Your task to perform on an android device: empty trash in google photos Image 0: 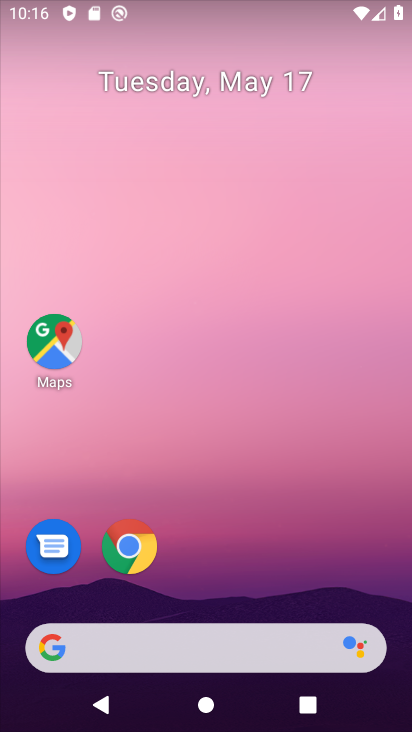
Step 0: drag from (315, 616) to (412, 531)
Your task to perform on an android device: empty trash in google photos Image 1: 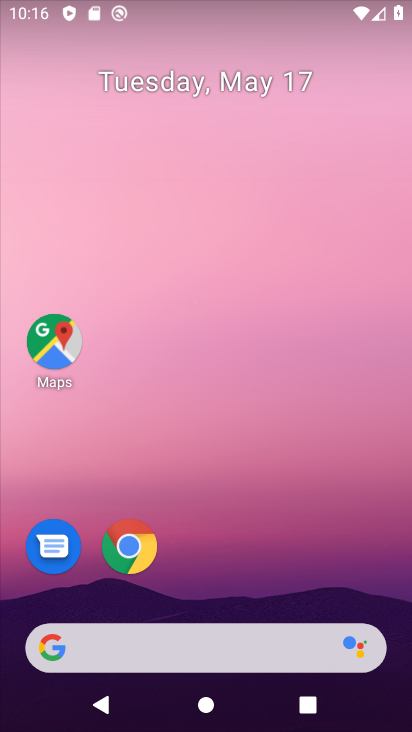
Step 1: drag from (276, 602) to (382, 18)
Your task to perform on an android device: empty trash in google photos Image 2: 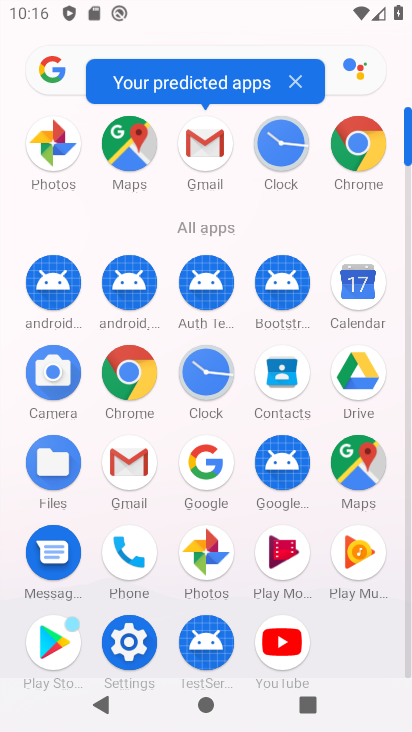
Step 2: click (197, 550)
Your task to perform on an android device: empty trash in google photos Image 3: 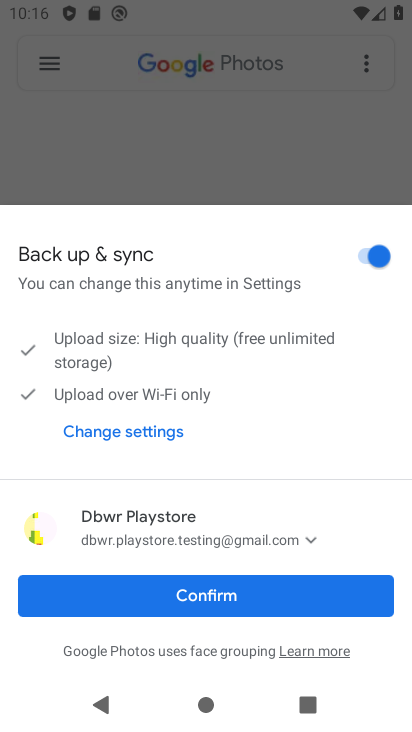
Step 3: click (204, 583)
Your task to perform on an android device: empty trash in google photos Image 4: 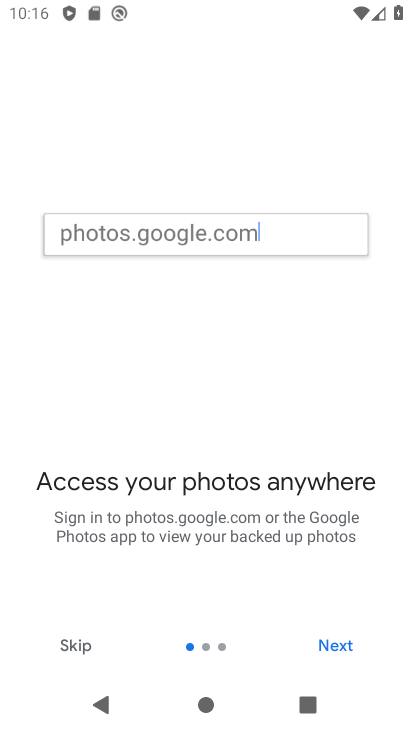
Step 4: click (84, 640)
Your task to perform on an android device: empty trash in google photos Image 5: 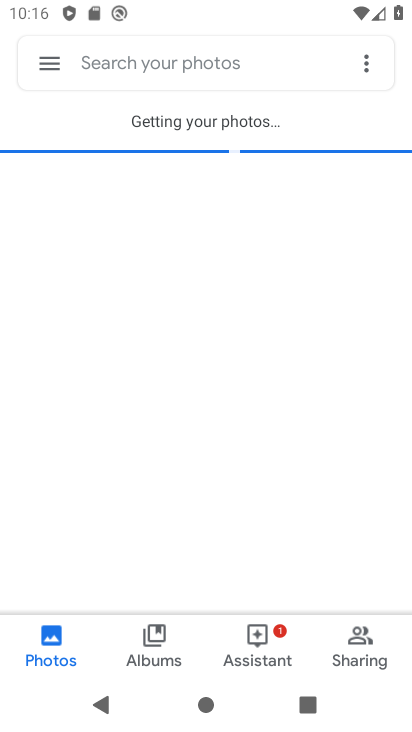
Step 5: click (40, 66)
Your task to perform on an android device: empty trash in google photos Image 6: 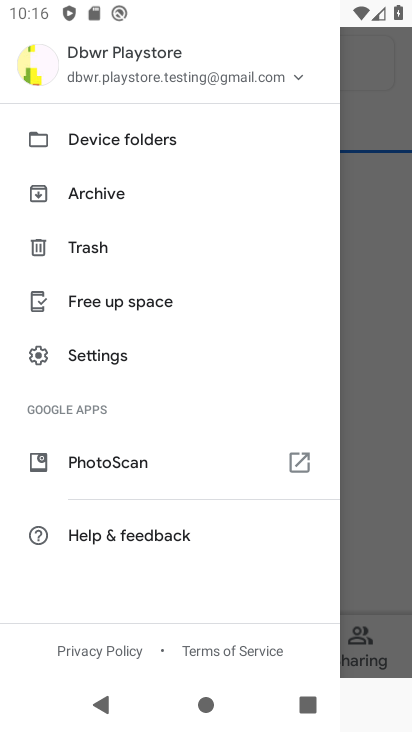
Step 6: click (54, 254)
Your task to perform on an android device: empty trash in google photos Image 7: 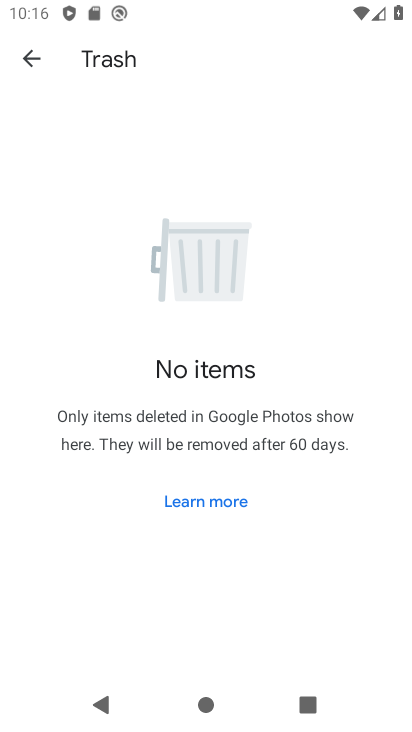
Step 7: task complete